Your task to perform on an android device: allow cookies in the chrome app Image 0: 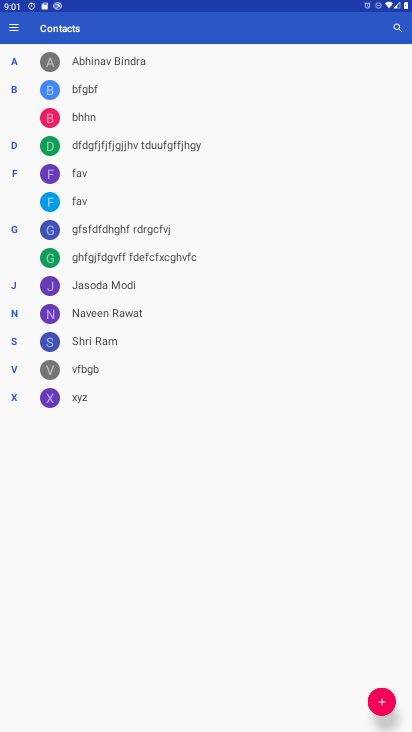
Step 0: press home button
Your task to perform on an android device: allow cookies in the chrome app Image 1: 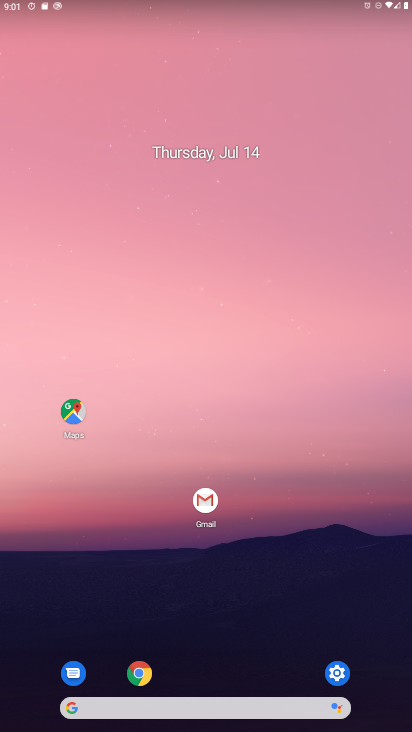
Step 1: click (146, 663)
Your task to perform on an android device: allow cookies in the chrome app Image 2: 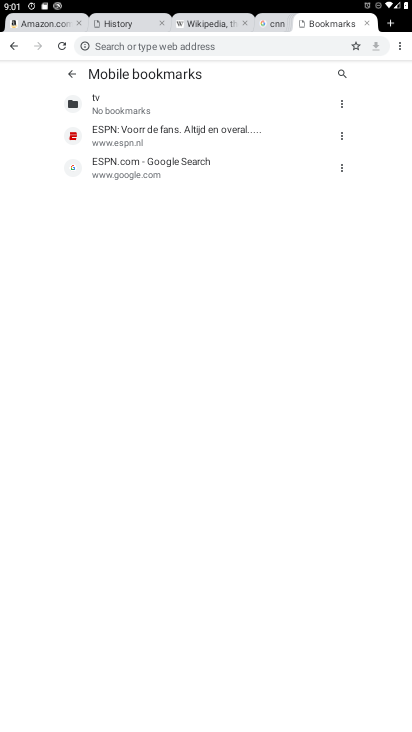
Step 2: click (398, 54)
Your task to perform on an android device: allow cookies in the chrome app Image 3: 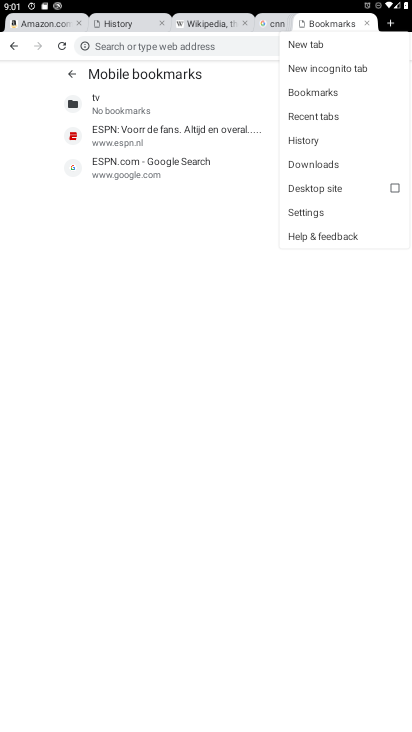
Step 3: click (309, 209)
Your task to perform on an android device: allow cookies in the chrome app Image 4: 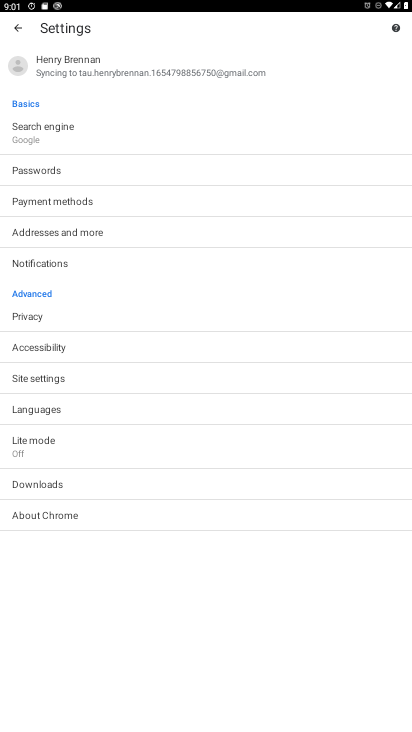
Step 4: click (46, 373)
Your task to perform on an android device: allow cookies in the chrome app Image 5: 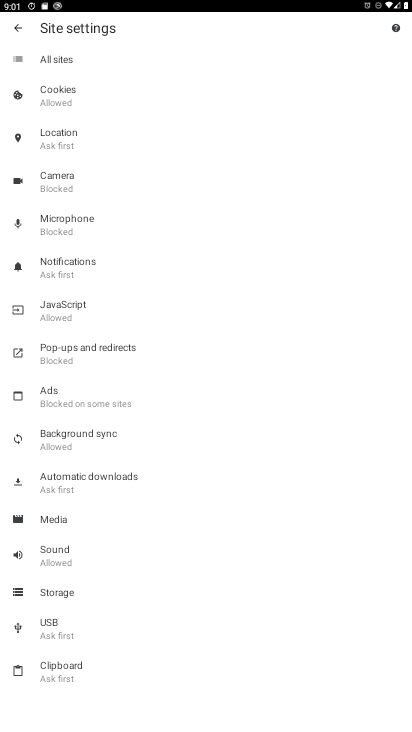
Step 5: click (71, 96)
Your task to perform on an android device: allow cookies in the chrome app Image 6: 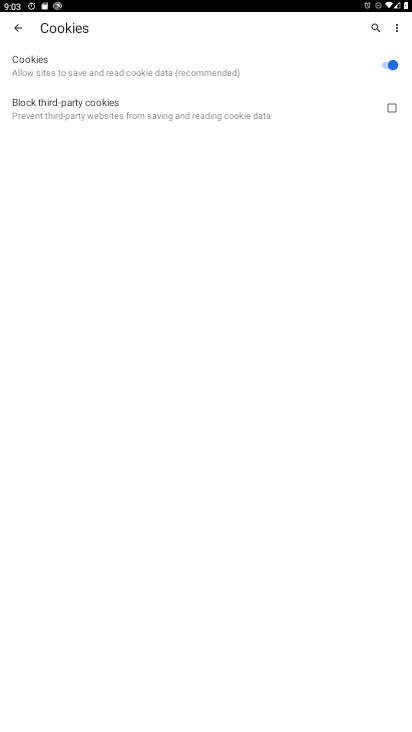
Step 6: task complete